Your task to perform on an android device: change timer sound Image 0: 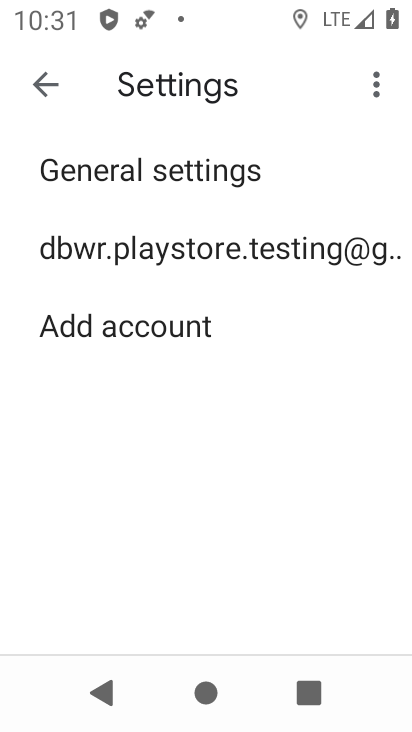
Step 0: press home button
Your task to perform on an android device: change timer sound Image 1: 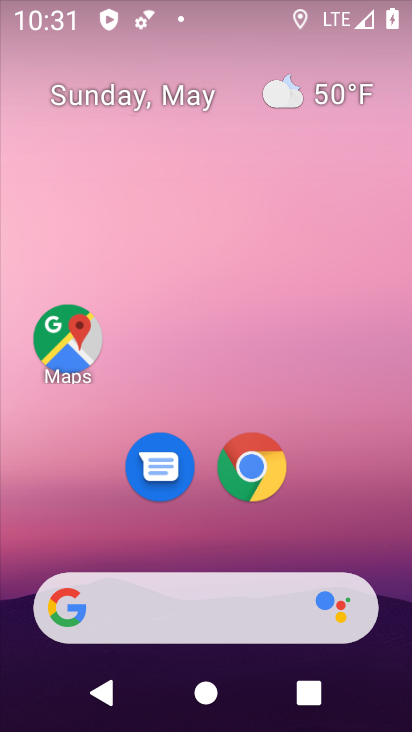
Step 1: drag from (160, 550) to (235, 170)
Your task to perform on an android device: change timer sound Image 2: 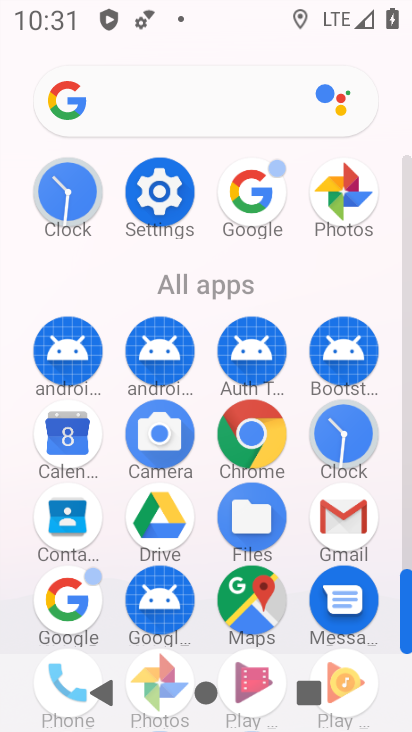
Step 2: click (72, 208)
Your task to perform on an android device: change timer sound Image 3: 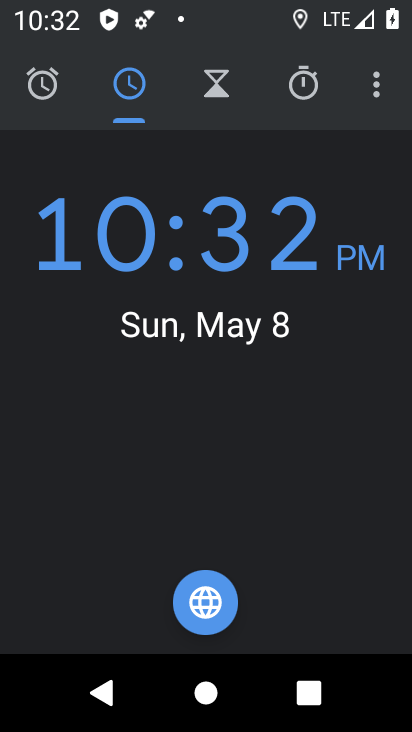
Step 3: click (374, 82)
Your task to perform on an android device: change timer sound Image 4: 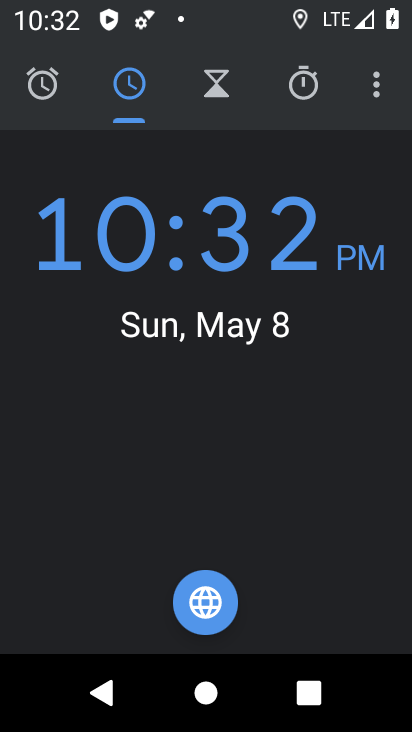
Step 4: click (378, 84)
Your task to perform on an android device: change timer sound Image 5: 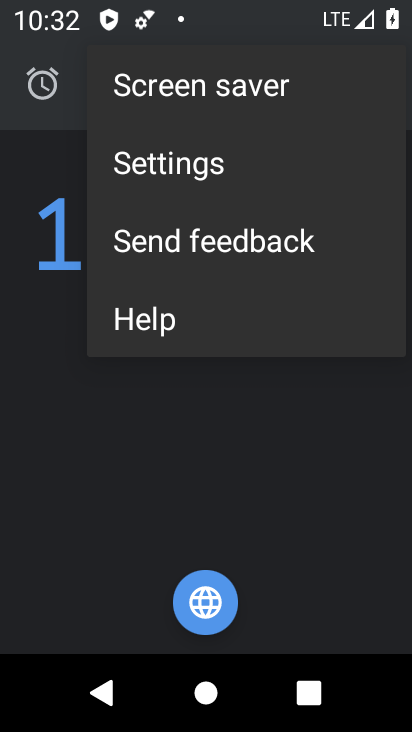
Step 5: click (172, 175)
Your task to perform on an android device: change timer sound Image 6: 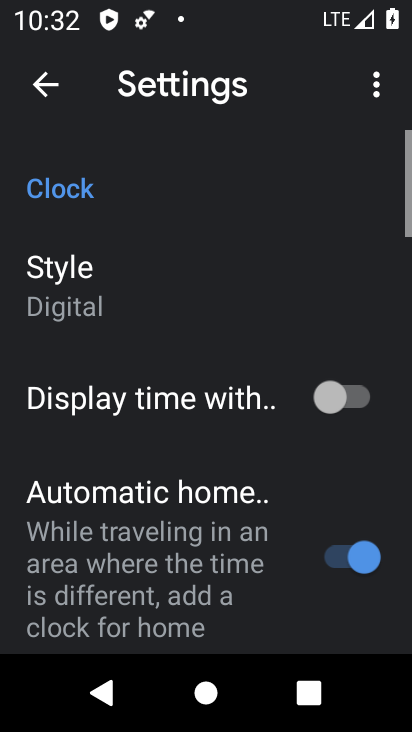
Step 6: drag from (221, 569) to (227, 215)
Your task to perform on an android device: change timer sound Image 7: 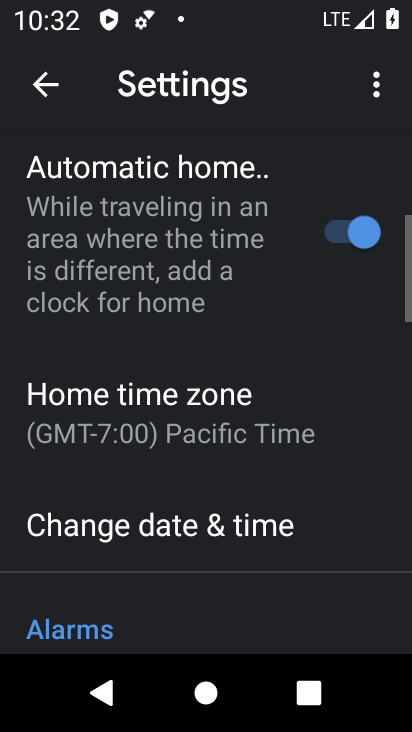
Step 7: drag from (181, 557) to (233, 244)
Your task to perform on an android device: change timer sound Image 8: 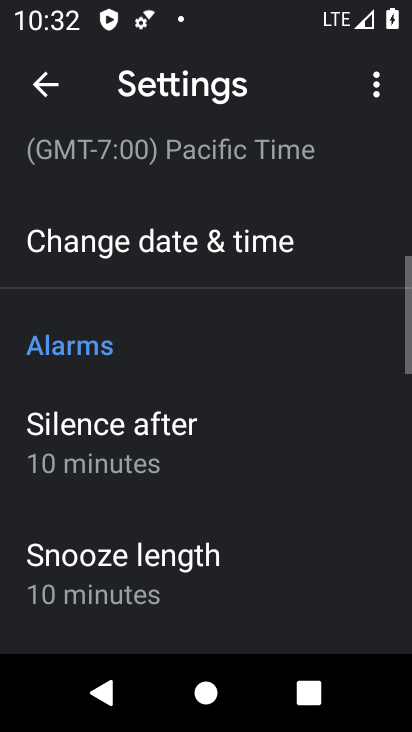
Step 8: drag from (187, 552) to (213, 291)
Your task to perform on an android device: change timer sound Image 9: 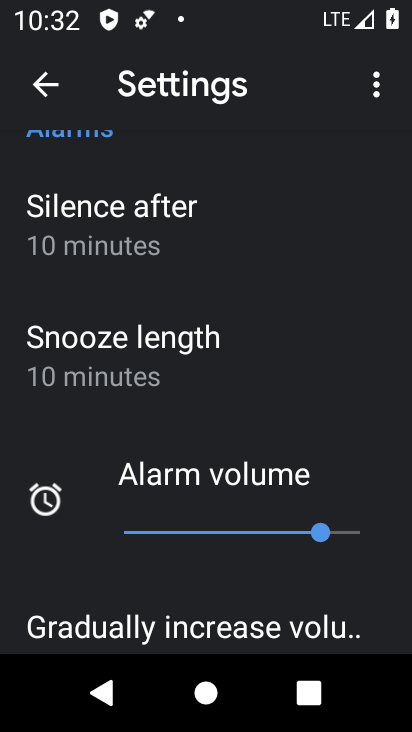
Step 9: drag from (185, 574) to (226, 251)
Your task to perform on an android device: change timer sound Image 10: 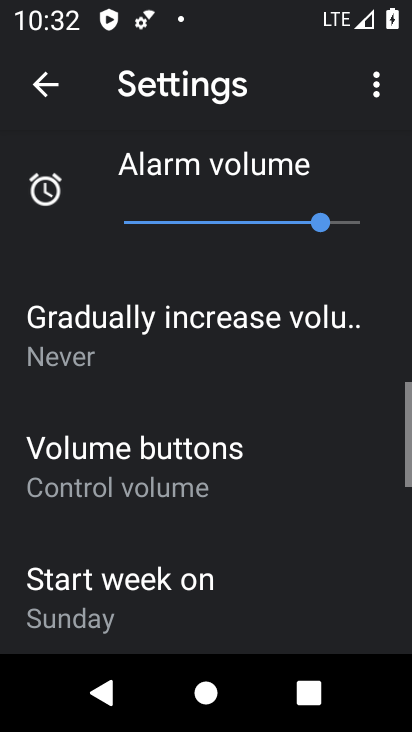
Step 10: drag from (206, 584) to (267, 309)
Your task to perform on an android device: change timer sound Image 11: 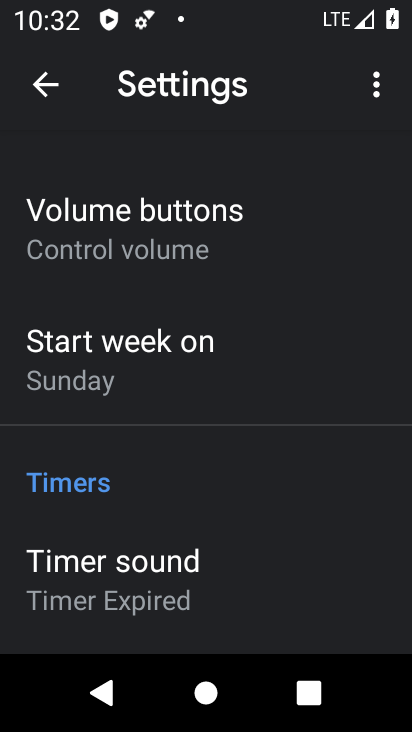
Step 11: click (194, 596)
Your task to perform on an android device: change timer sound Image 12: 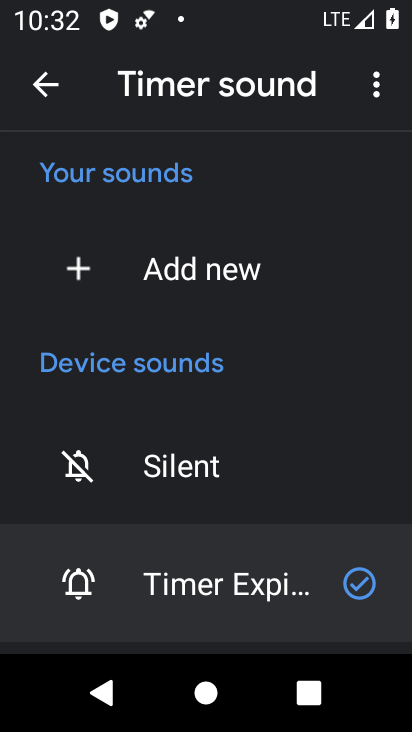
Step 12: drag from (247, 529) to (258, 217)
Your task to perform on an android device: change timer sound Image 13: 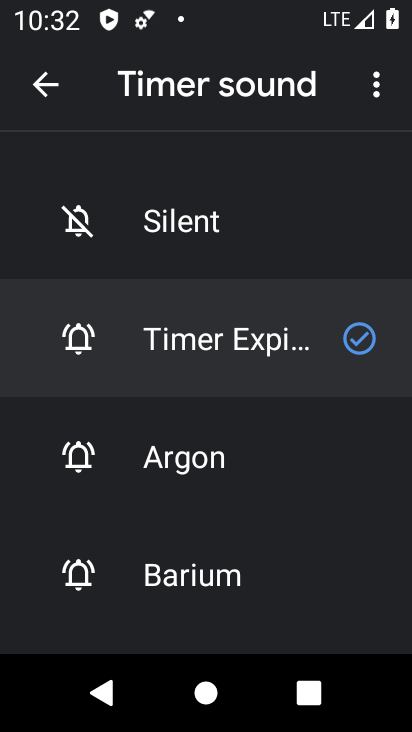
Step 13: click (221, 468)
Your task to perform on an android device: change timer sound Image 14: 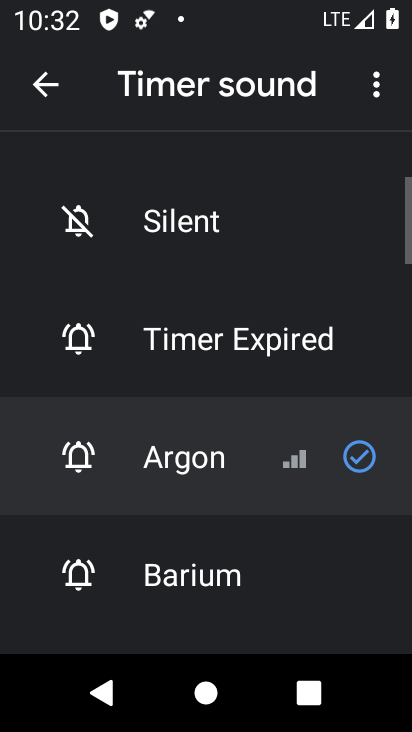
Step 14: task complete